Your task to perform on an android device: Check the weather Image 0: 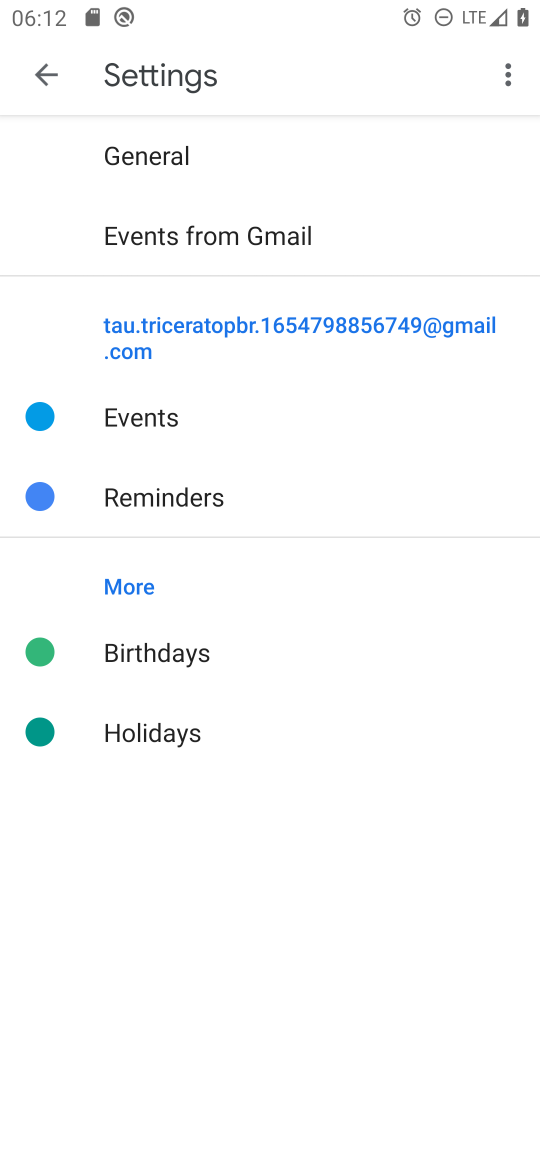
Step 0: press home button
Your task to perform on an android device: Check the weather Image 1: 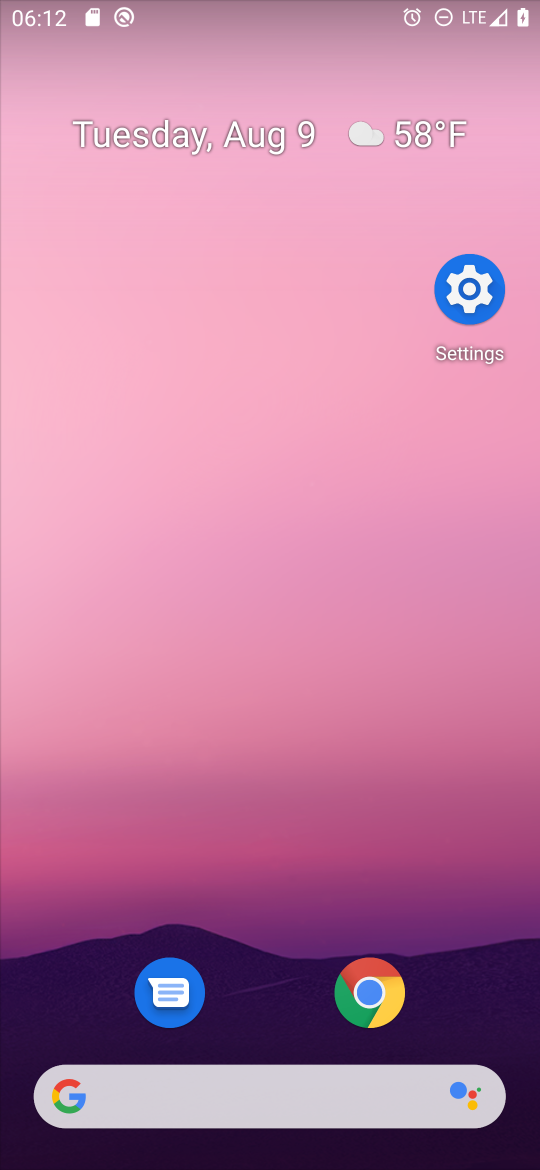
Step 1: drag from (219, 1099) to (410, 465)
Your task to perform on an android device: Check the weather Image 2: 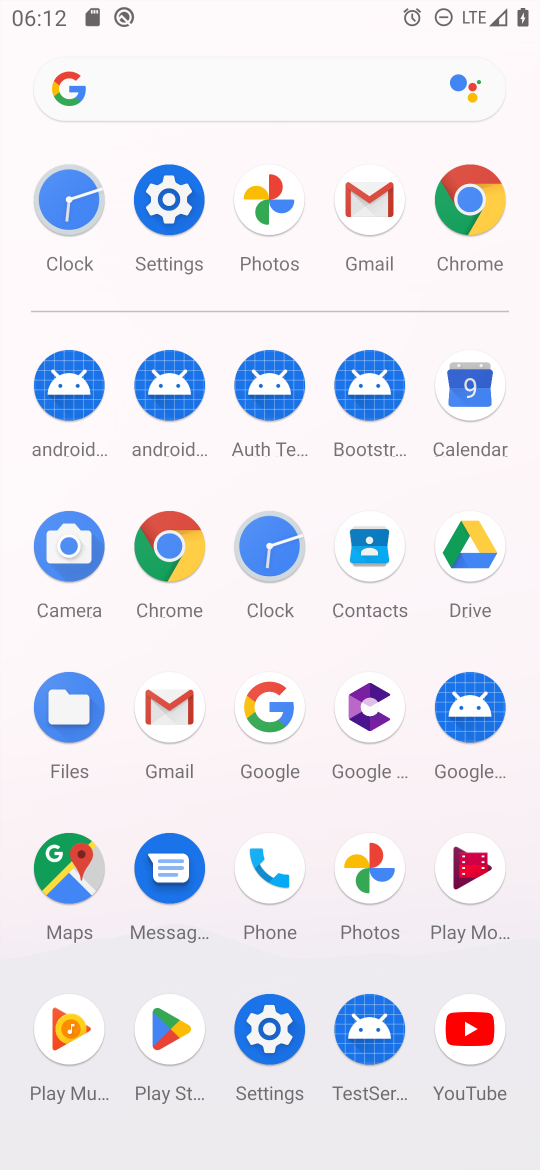
Step 2: click (167, 511)
Your task to perform on an android device: Check the weather Image 3: 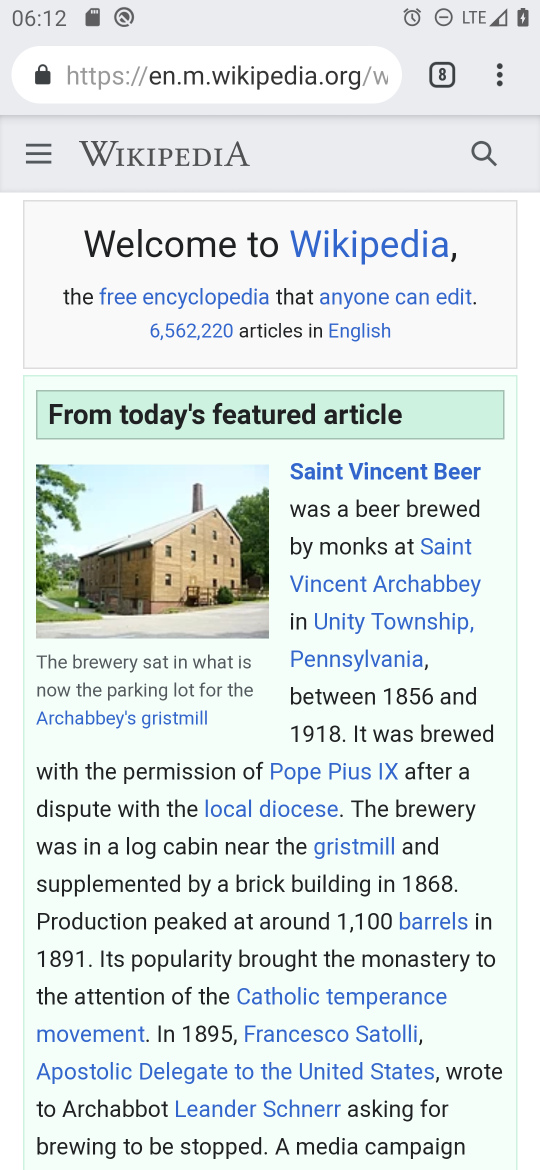
Step 3: click (244, 83)
Your task to perform on an android device: Check the weather Image 4: 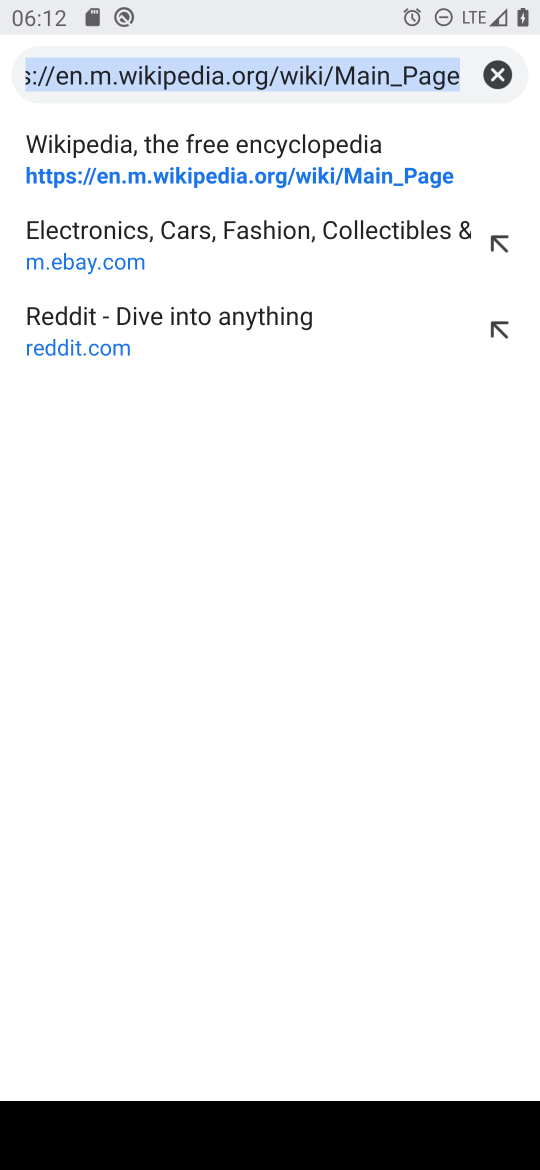
Step 4: type "check the weather"
Your task to perform on an android device: Check the weather Image 5: 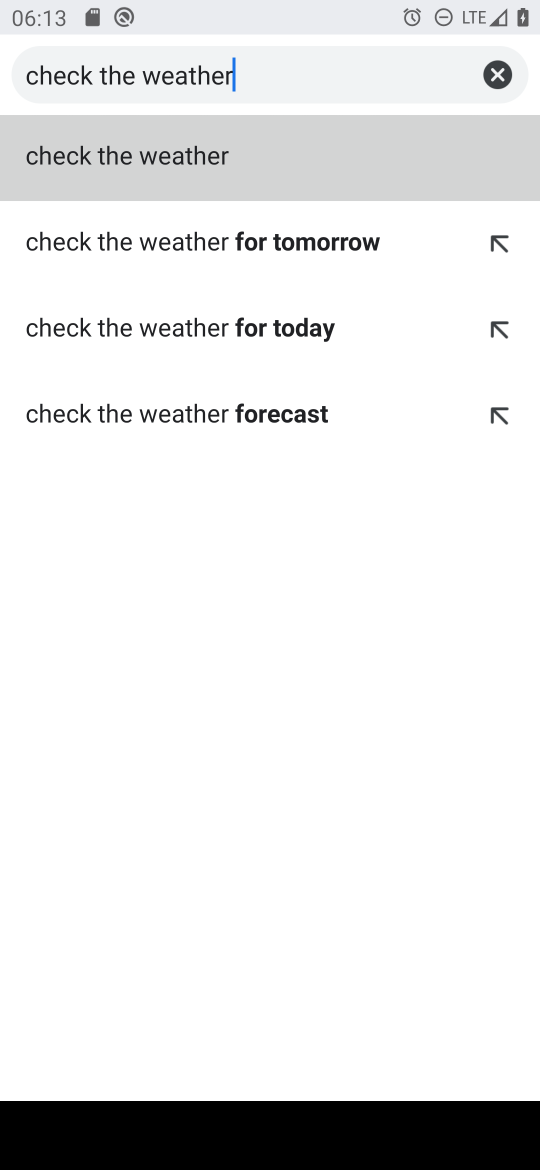
Step 5: click (220, 153)
Your task to perform on an android device: Check the weather Image 6: 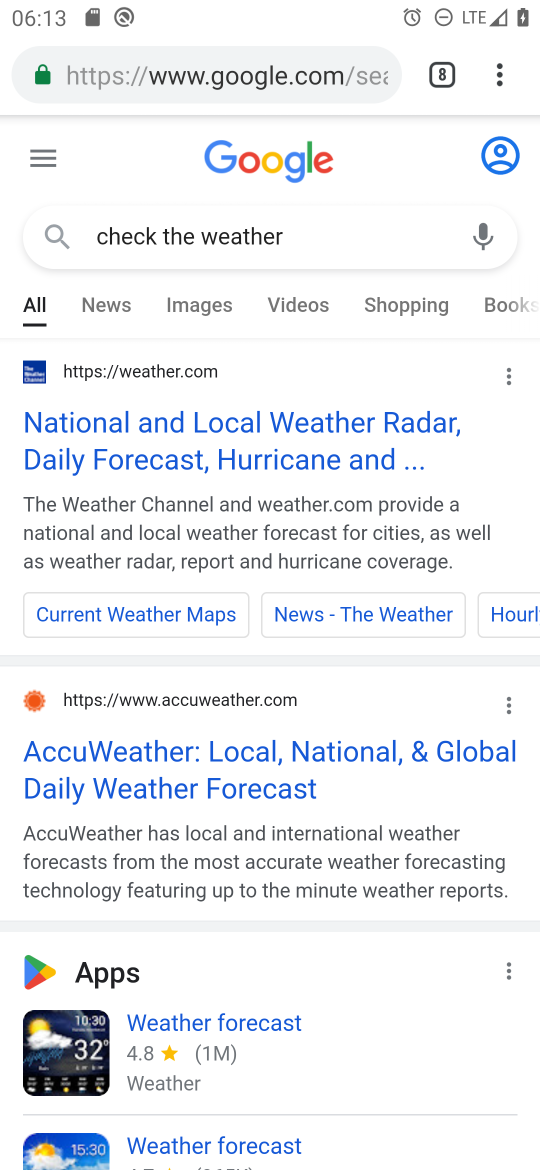
Step 6: task complete